Your task to perform on an android device: Open the Play Movies app and select the watchlist tab. Image 0: 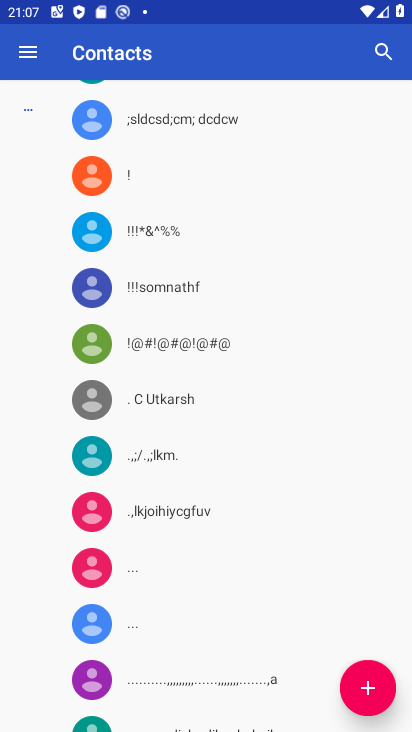
Step 0: press back button
Your task to perform on an android device: Open the Play Movies app and select the watchlist tab. Image 1: 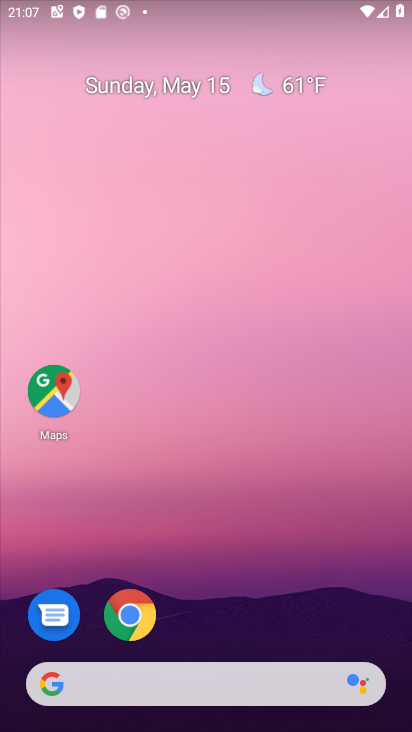
Step 1: drag from (289, 565) to (260, 13)
Your task to perform on an android device: Open the Play Movies app and select the watchlist tab. Image 2: 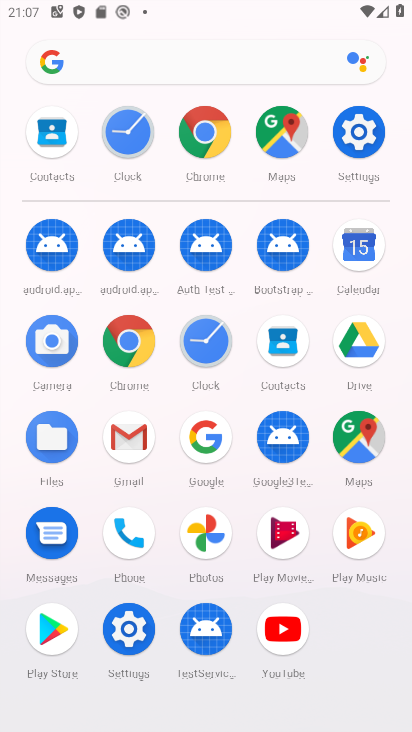
Step 2: click (282, 527)
Your task to perform on an android device: Open the Play Movies app and select the watchlist tab. Image 3: 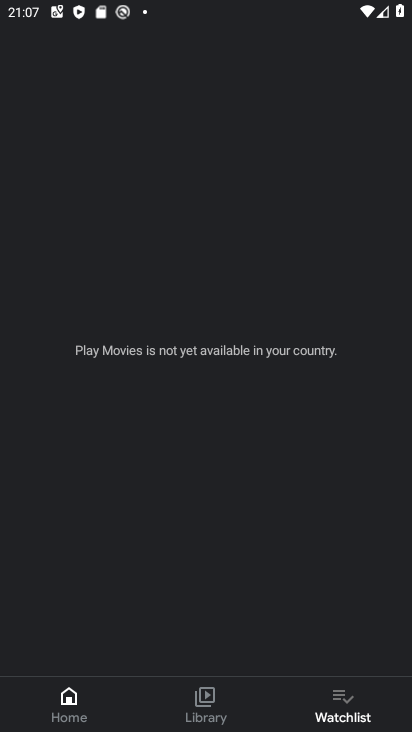
Step 3: click (329, 693)
Your task to perform on an android device: Open the Play Movies app and select the watchlist tab. Image 4: 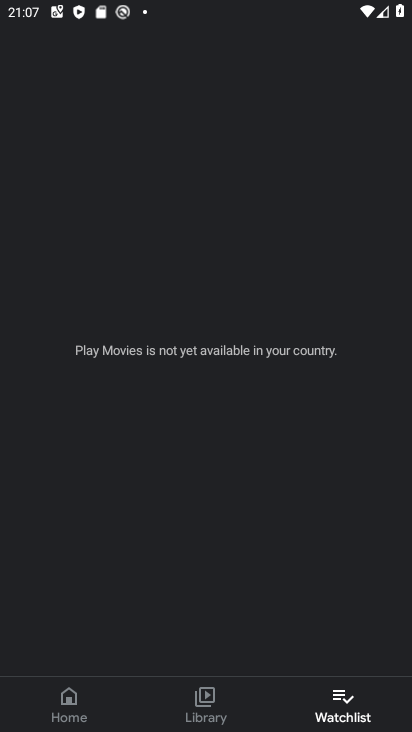
Step 4: task complete